Your task to perform on an android device: Open settings Image 0: 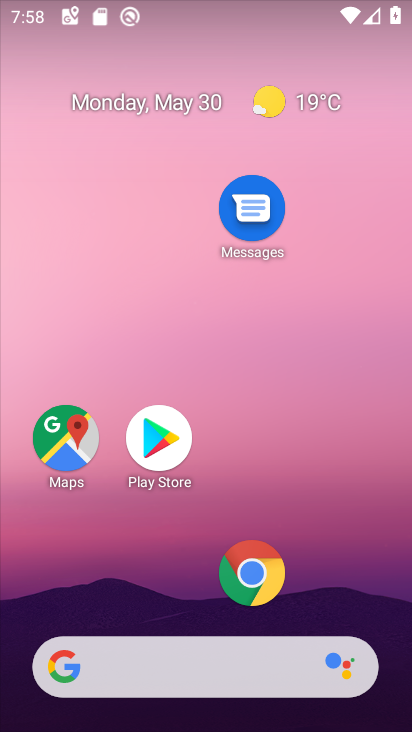
Step 0: drag from (141, 611) to (183, 78)
Your task to perform on an android device: Open settings Image 1: 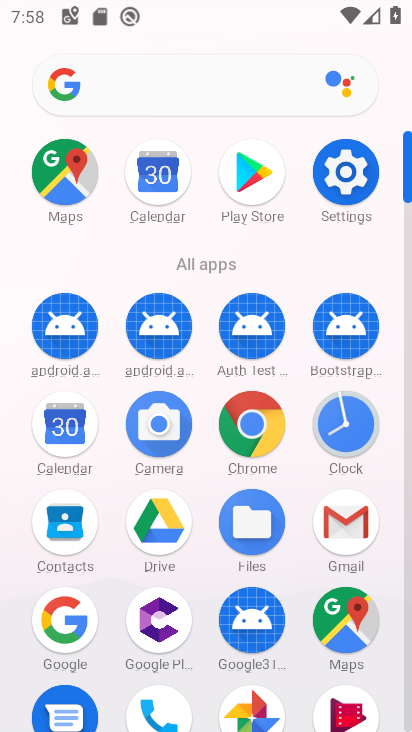
Step 1: click (356, 192)
Your task to perform on an android device: Open settings Image 2: 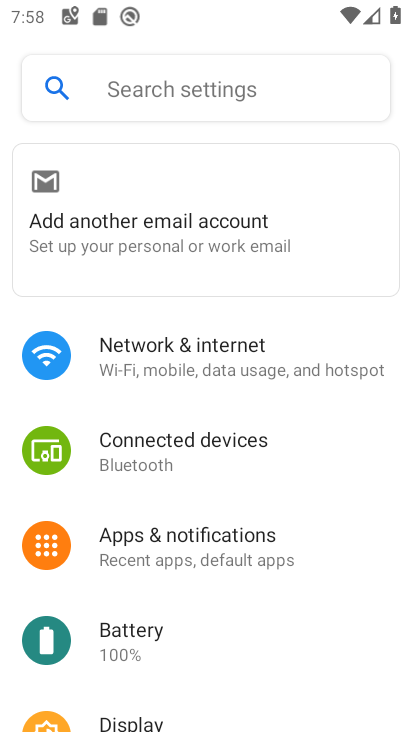
Step 2: task complete